Your task to perform on an android device: See recent photos Image 0: 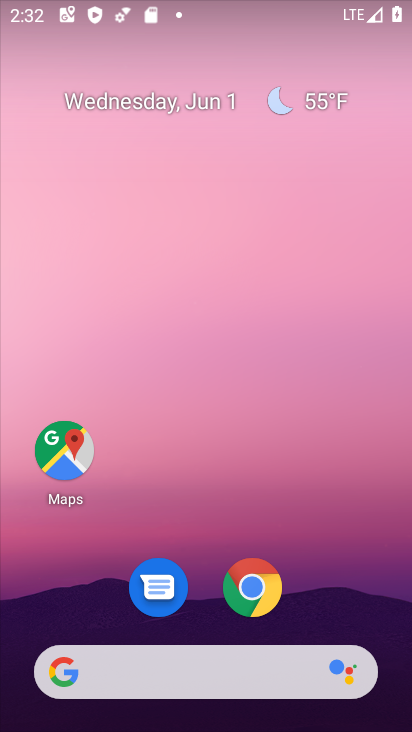
Step 0: drag from (229, 685) to (224, 233)
Your task to perform on an android device: See recent photos Image 1: 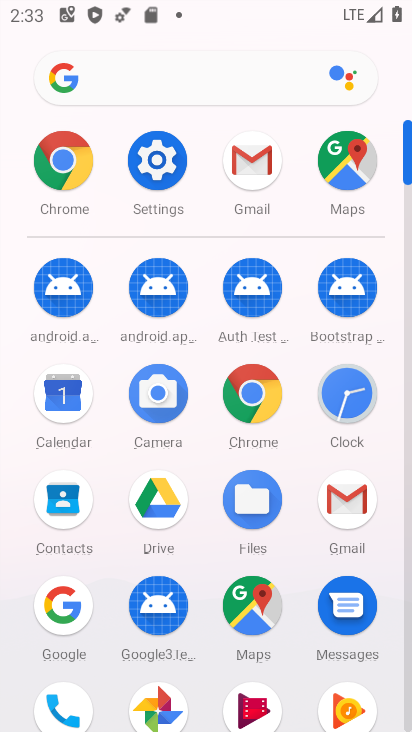
Step 1: drag from (305, 568) to (309, 274)
Your task to perform on an android device: See recent photos Image 2: 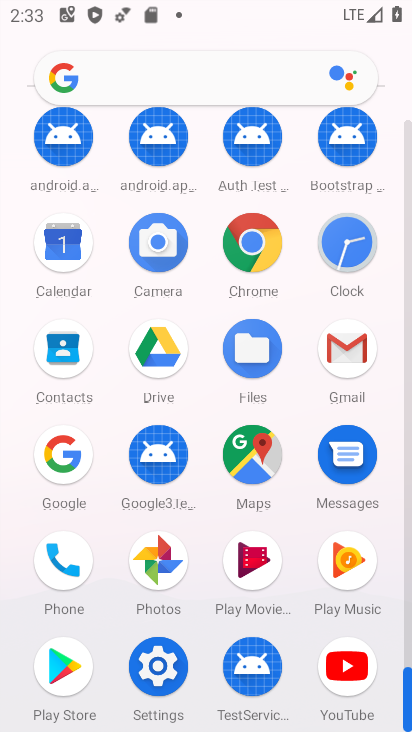
Step 2: click (160, 566)
Your task to perform on an android device: See recent photos Image 3: 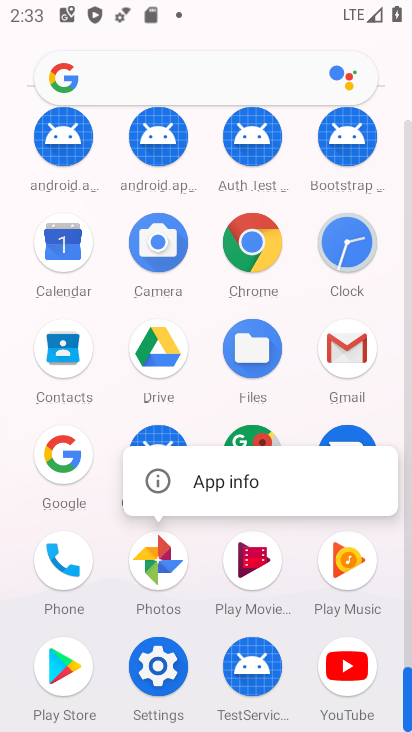
Step 3: click (160, 566)
Your task to perform on an android device: See recent photos Image 4: 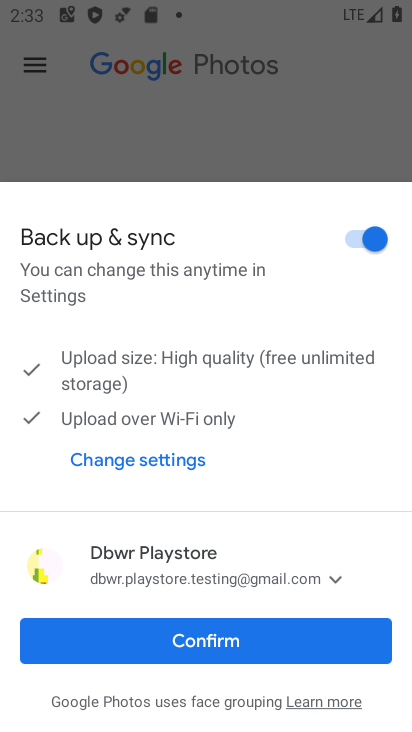
Step 4: click (235, 637)
Your task to perform on an android device: See recent photos Image 5: 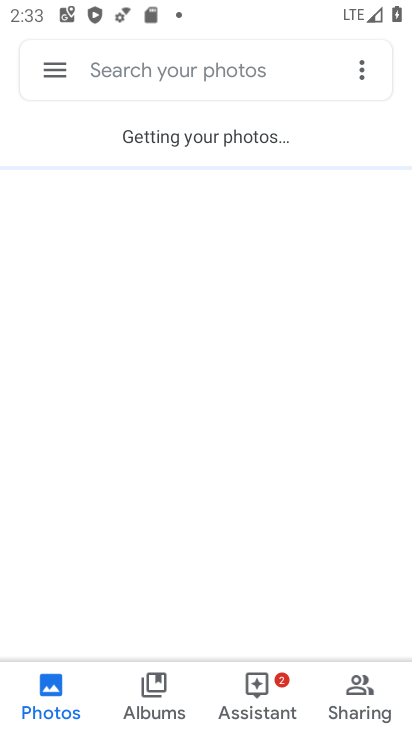
Step 5: task complete